Your task to perform on an android device: turn on airplane mode Image 0: 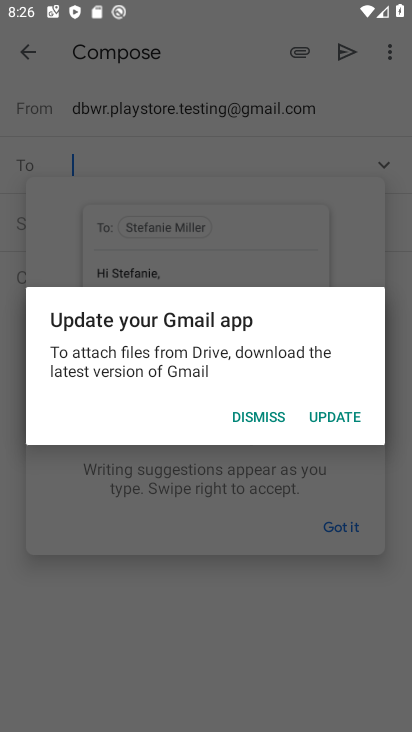
Step 0: press home button
Your task to perform on an android device: turn on airplane mode Image 1: 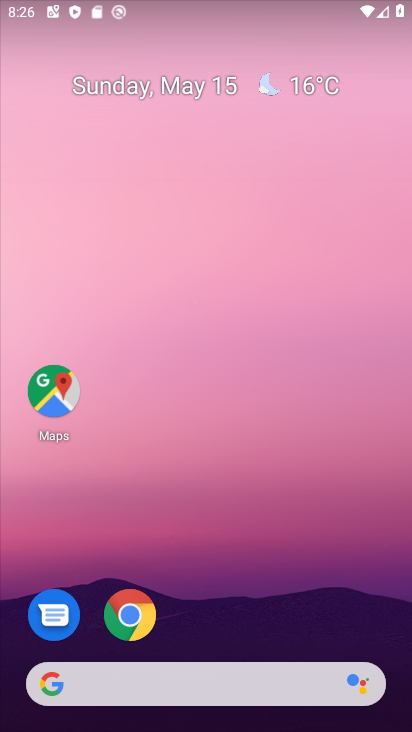
Step 1: drag from (366, 5) to (353, 523)
Your task to perform on an android device: turn on airplane mode Image 2: 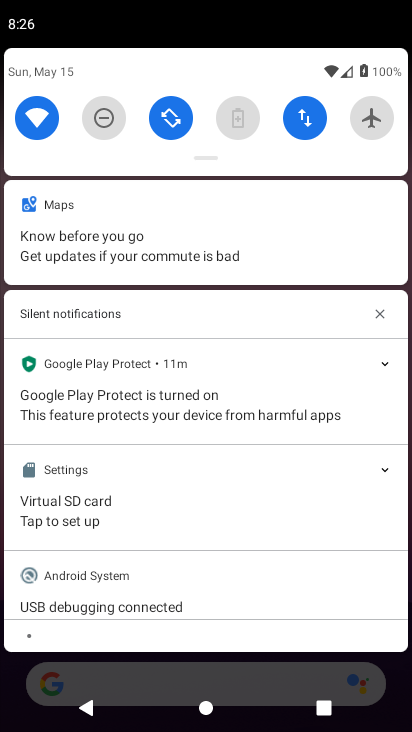
Step 2: click (376, 118)
Your task to perform on an android device: turn on airplane mode Image 3: 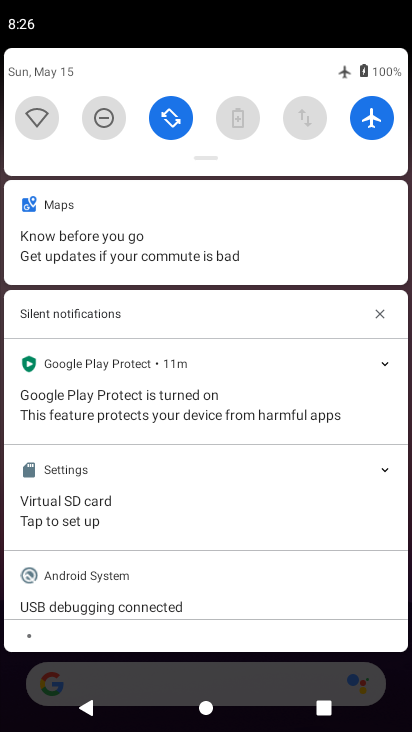
Step 3: task complete